Your task to perform on an android device: Open wifi settings Image 0: 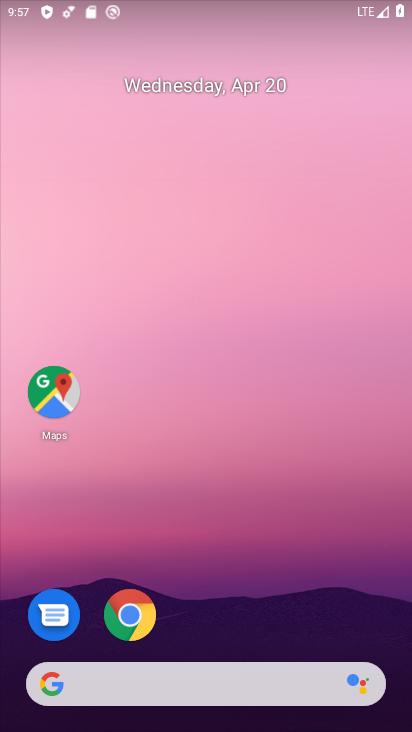
Step 0: drag from (320, 549) to (275, 60)
Your task to perform on an android device: Open wifi settings Image 1: 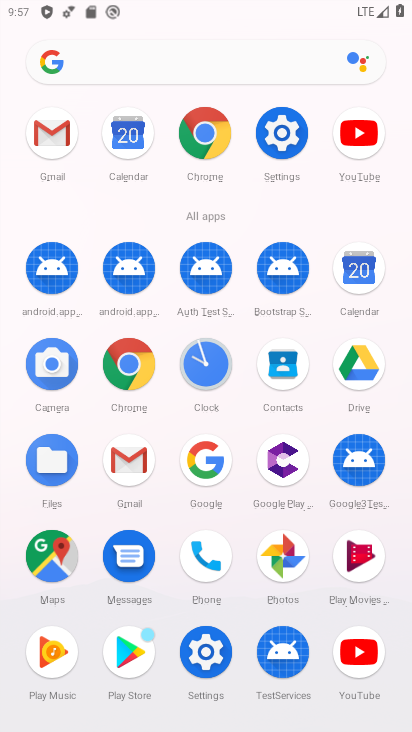
Step 1: click (276, 120)
Your task to perform on an android device: Open wifi settings Image 2: 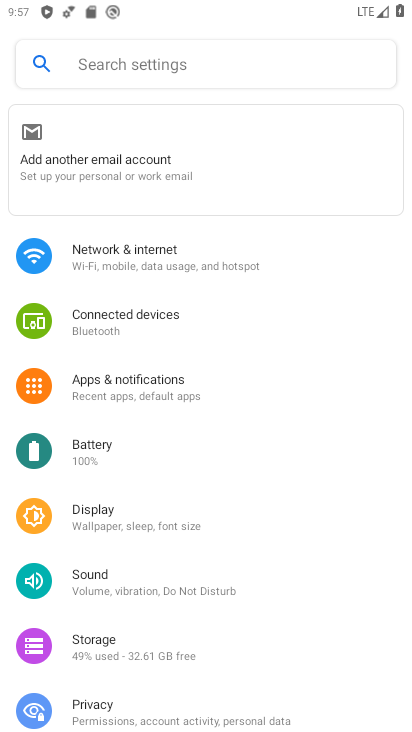
Step 2: click (248, 261)
Your task to perform on an android device: Open wifi settings Image 3: 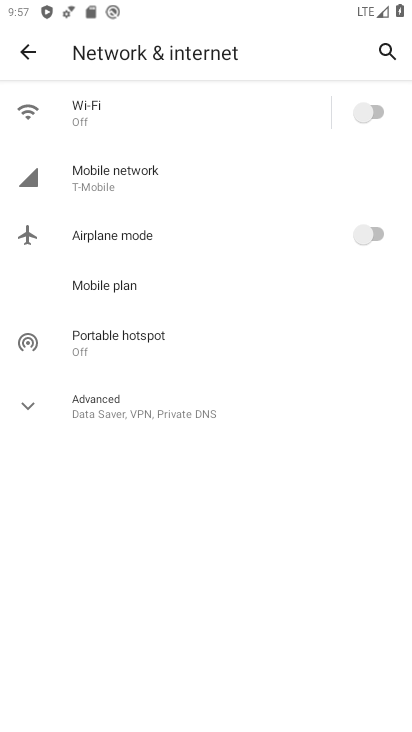
Step 3: click (199, 108)
Your task to perform on an android device: Open wifi settings Image 4: 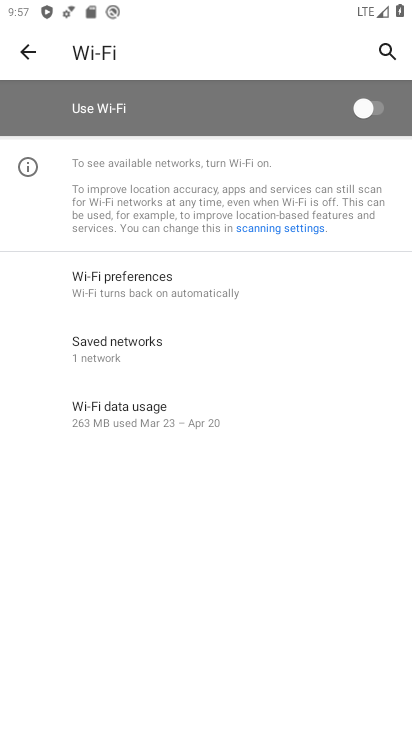
Step 4: task complete